Your task to perform on an android device: move a message to another label in the gmail app Image 0: 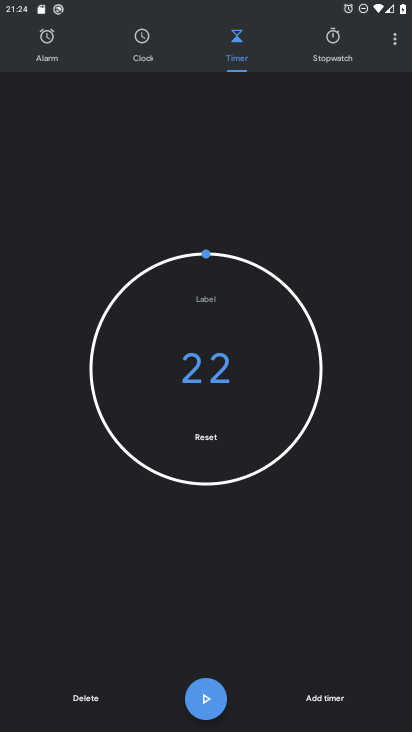
Step 0: drag from (280, 518) to (314, 4)
Your task to perform on an android device: move a message to another label in the gmail app Image 1: 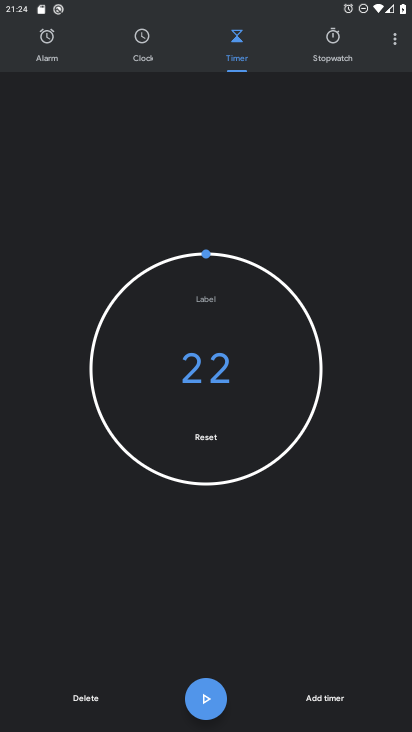
Step 1: click (281, 582)
Your task to perform on an android device: move a message to another label in the gmail app Image 2: 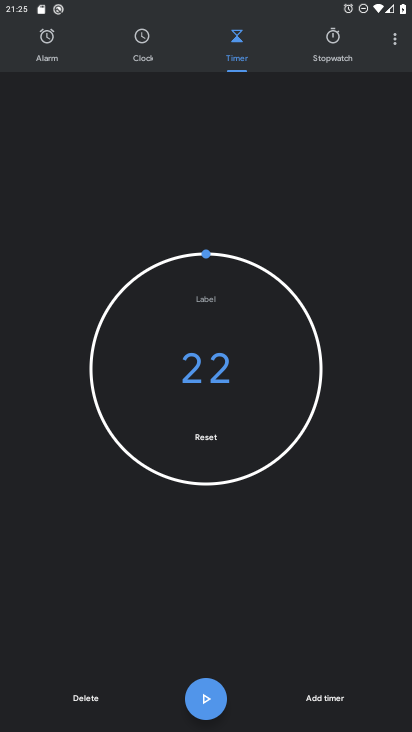
Step 2: press home button
Your task to perform on an android device: move a message to another label in the gmail app Image 3: 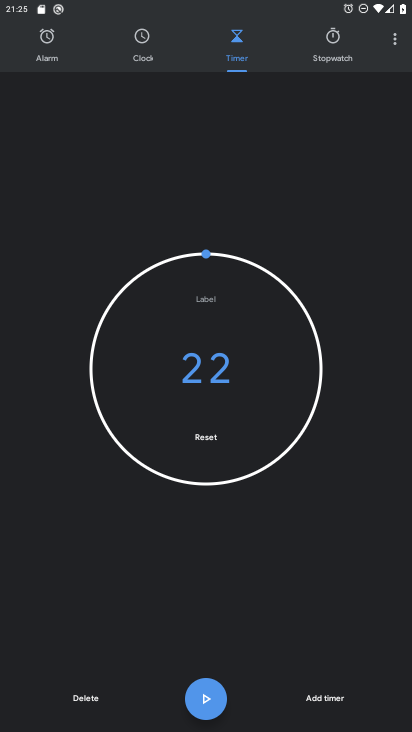
Step 3: press home button
Your task to perform on an android device: move a message to another label in the gmail app Image 4: 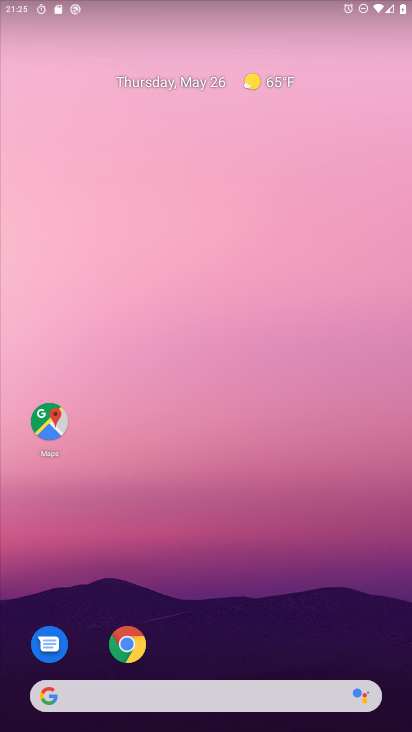
Step 4: drag from (175, 643) to (241, 129)
Your task to perform on an android device: move a message to another label in the gmail app Image 5: 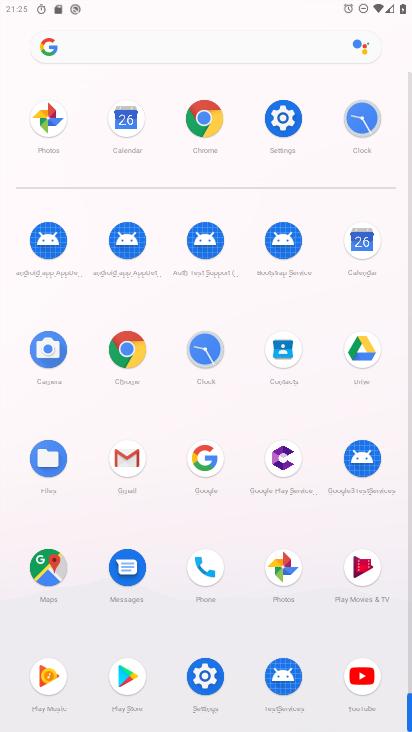
Step 5: click (129, 460)
Your task to perform on an android device: move a message to another label in the gmail app Image 6: 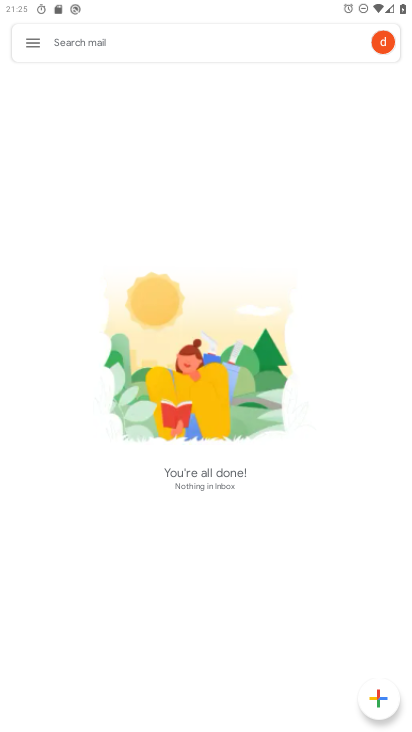
Step 6: drag from (196, 608) to (230, 198)
Your task to perform on an android device: move a message to another label in the gmail app Image 7: 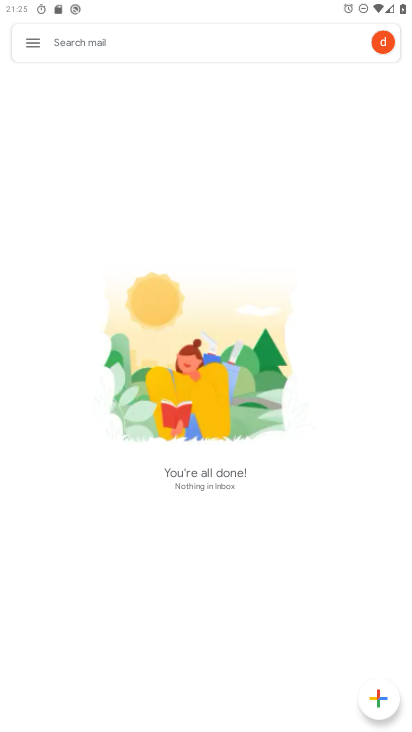
Step 7: click (31, 46)
Your task to perform on an android device: move a message to another label in the gmail app Image 8: 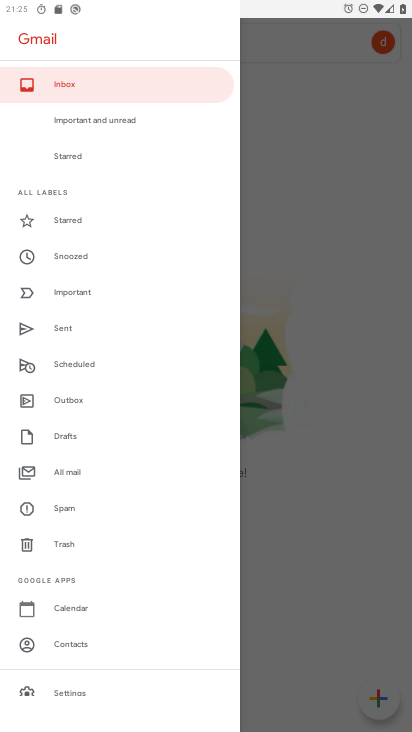
Step 8: drag from (99, 394) to (114, 104)
Your task to perform on an android device: move a message to another label in the gmail app Image 9: 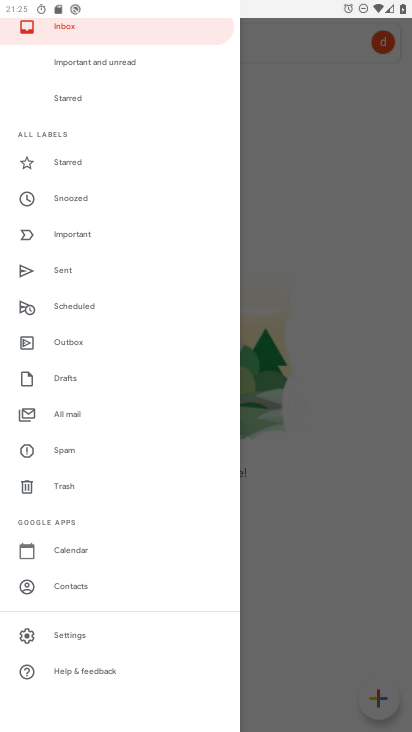
Step 9: click (310, 209)
Your task to perform on an android device: move a message to another label in the gmail app Image 10: 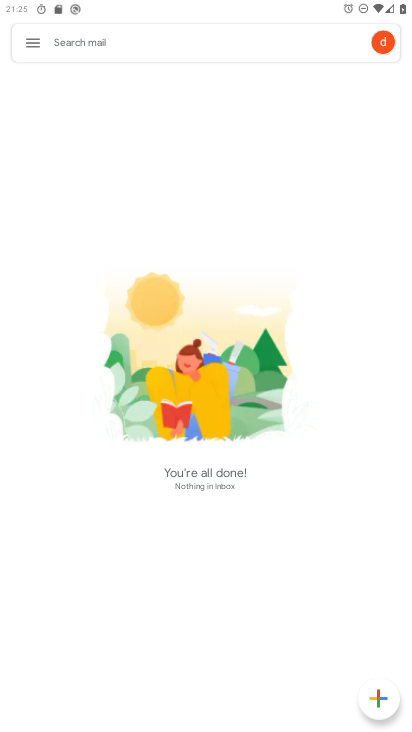
Step 10: task complete